Your task to perform on an android device: toggle translation in the chrome app Image 0: 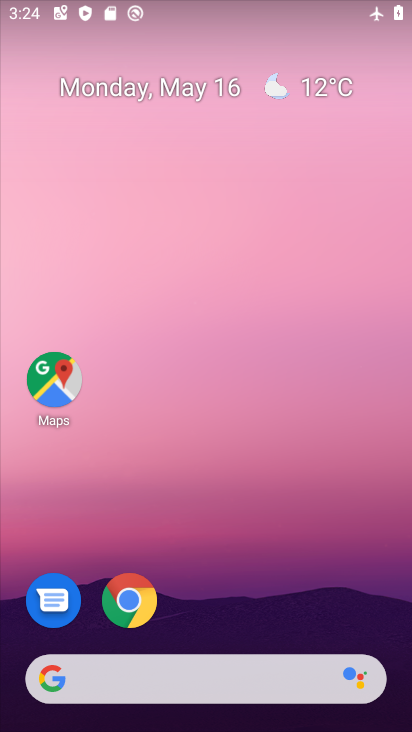
Step 0: click (139, 603)
Your task to perform on an android device: toggle translation in the chrome app Image 1: 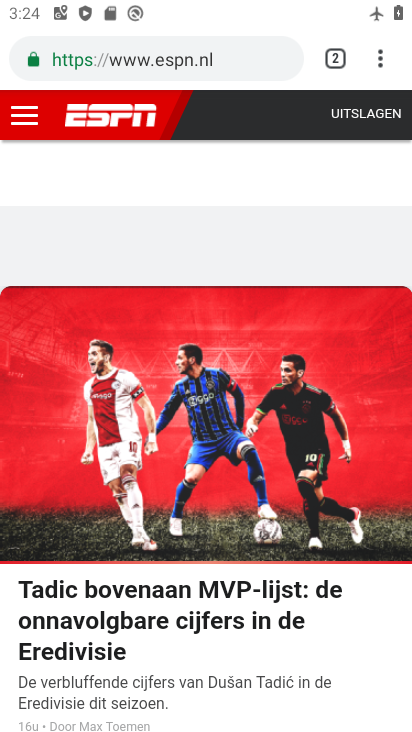
Step 1: click (385, 61)
Your task to perform on an android device: toggle translation in the chrome app Image 2: 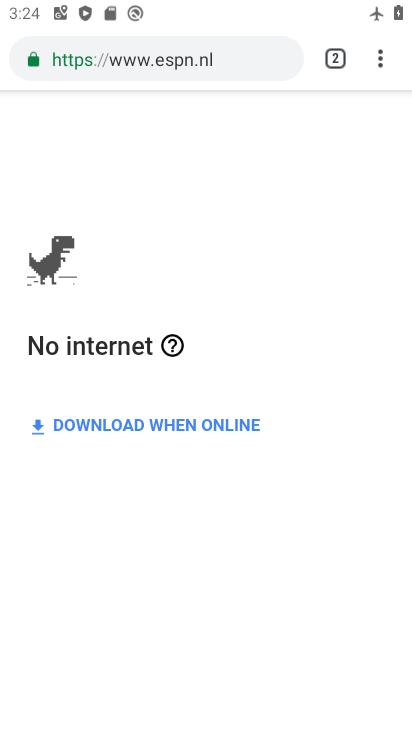
Step 2: drag from (370, 64) to (182, 646)
Your task to perform on an android device: toggle translation in the chrome app Image 3: 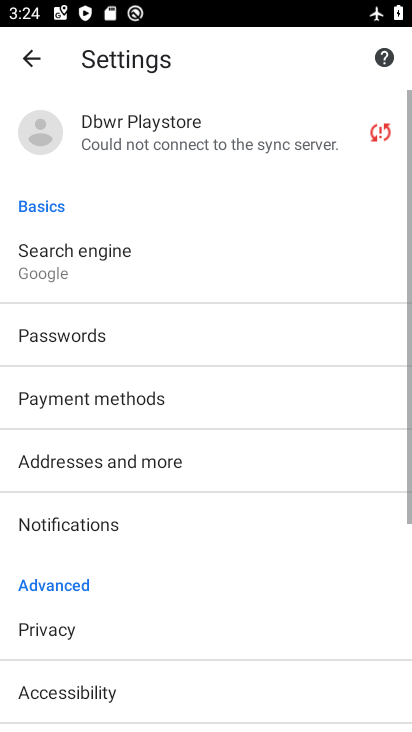
Step 3: drag from (182, 646) to (155, 67)
Your task to perform on an android device: toggle translation in the chrome app Image 4: 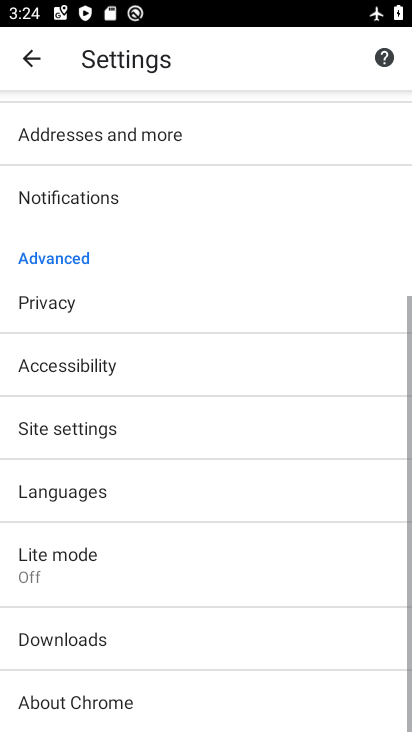
Step 4: click (79, 492)
Your task to perform on an android device: toggle translation in the chrome app Image 5: 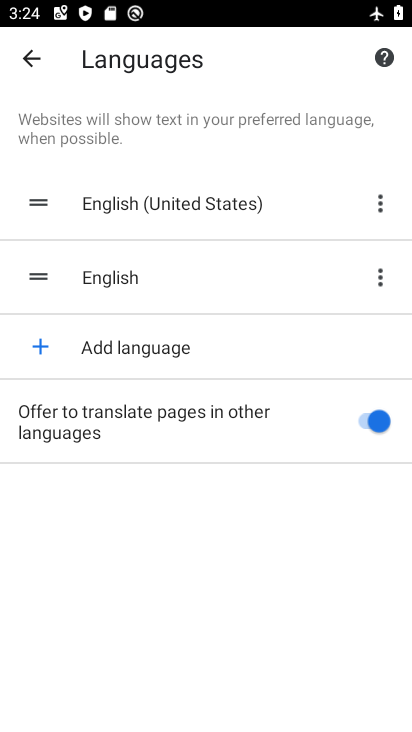
Step 5: click (385, 420)
Your task to perform on an android device: toggle translation in the chrome app Image 6: 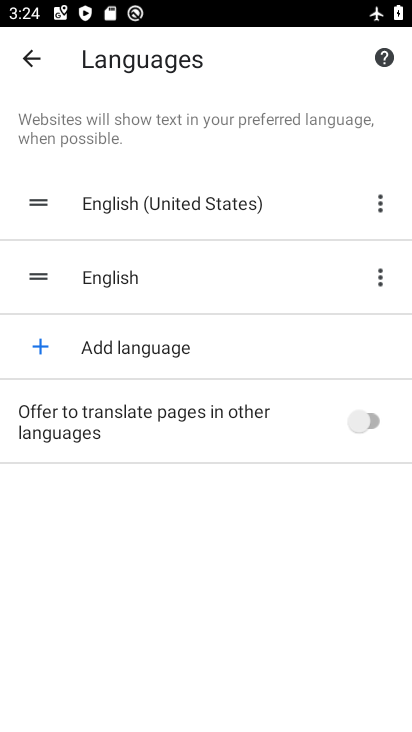
Step 6: task complete